Your task to perform on an android device: Open accessibility settings Image 0: 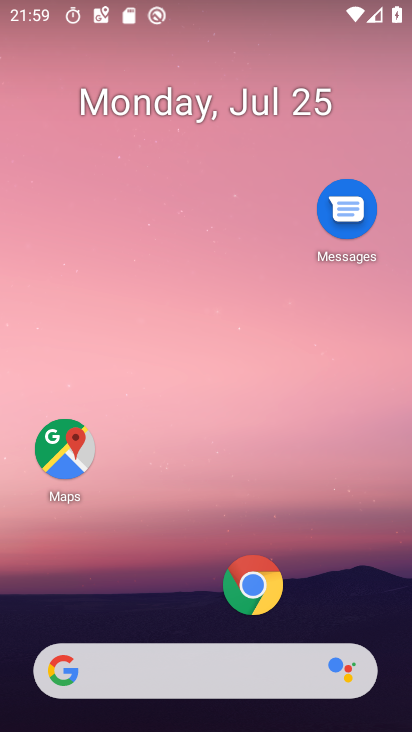
Step 0: drag from (136, 670) to (229, 147)
Your task to perform on an android device: Open accessibility settings Image 1: 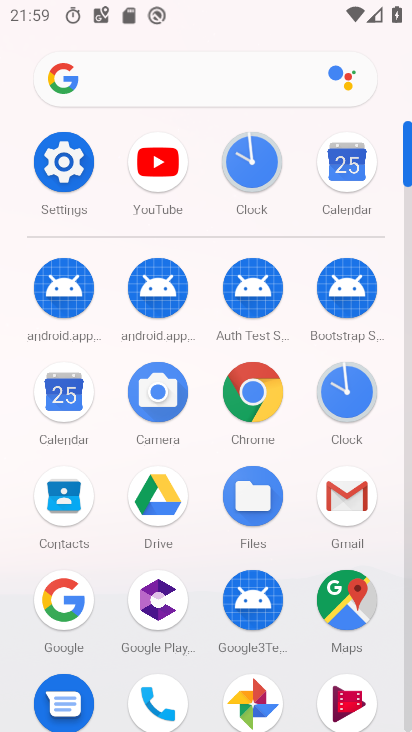
Step 1: click (69, 153)
Your task to perform on an android device: Open accessibility settings Image 2: 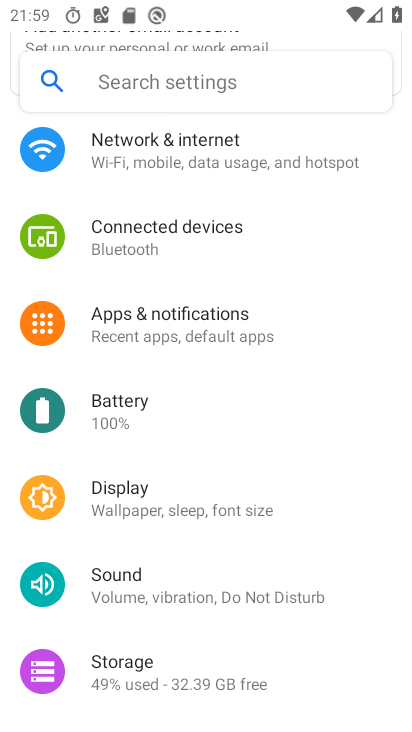
Step 2: drag from (230, 649) to (337, 96)
Your task to perform on an android device: Open accessibility settings Image 3: 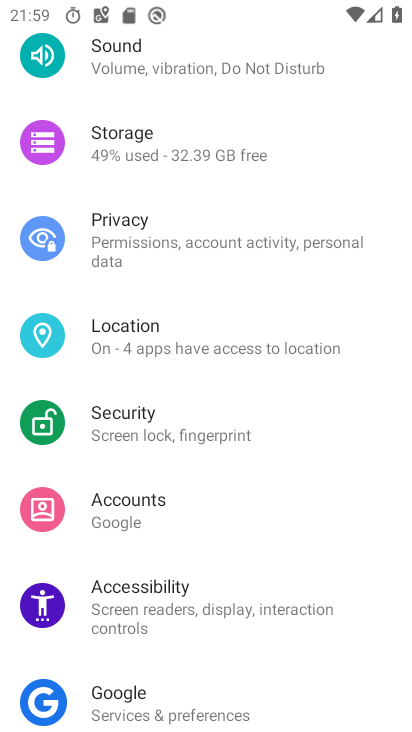
Step 3: click (171, 604)
Your task to perform on an android device: Open accessibility settings Image 4: 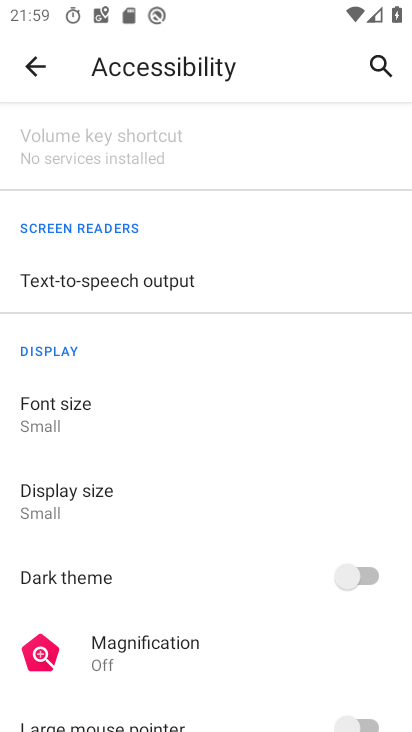
Step 4: task complete